Your task to perform on an android device: see creations saved in the google photos Image 0: 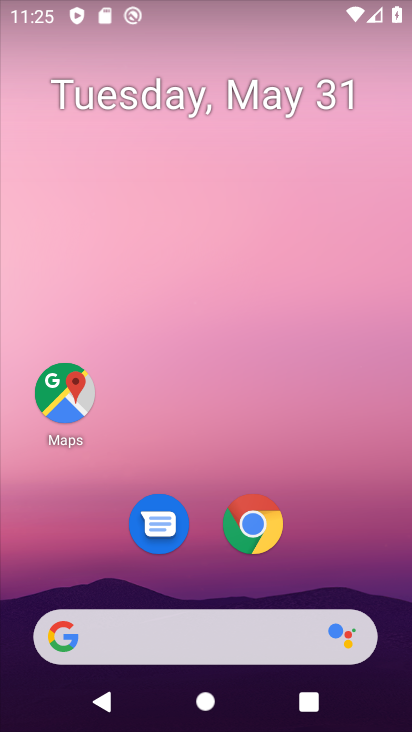
Step 0: drag from (318, 541) to (279, 19)
Your task to perform on an android device: see creations saved in the google photos Image 1: 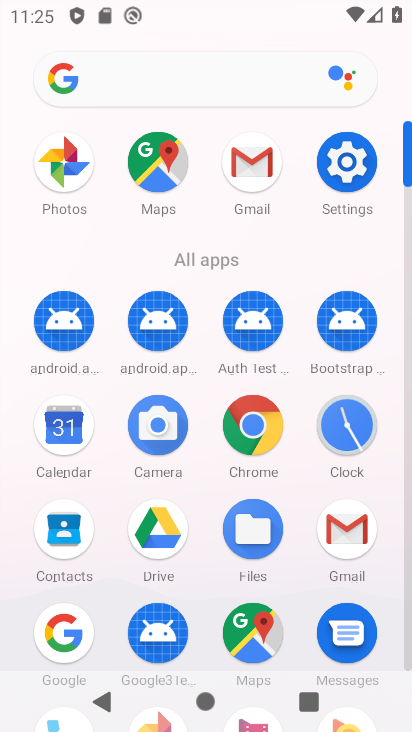
Step 1: click (55, 158)
Your task to perform on an android device: see creations saved in the google photos Image 2: 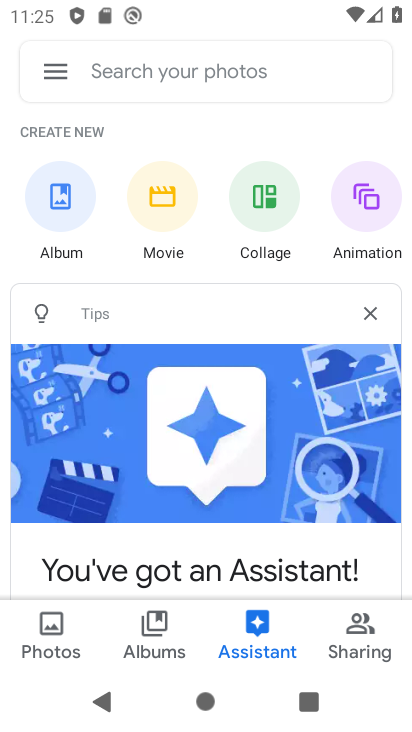
Step 2: click (215, 66)
Your task to perform on an android device: see creations saved in the google photos Image 3: 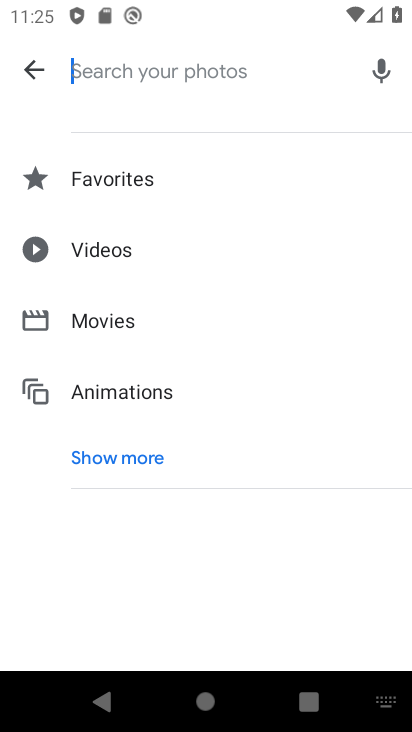
Step 3: click (140, 445)
Your task to perform on an android device: see creations saved in the google photos Image 4: 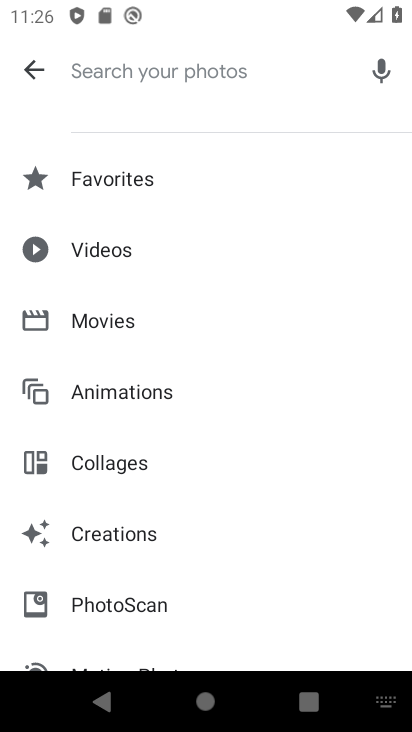
Step 4: click (100, 533)
Your task to perform on an android device: see creations saved in the google photos Image 5: 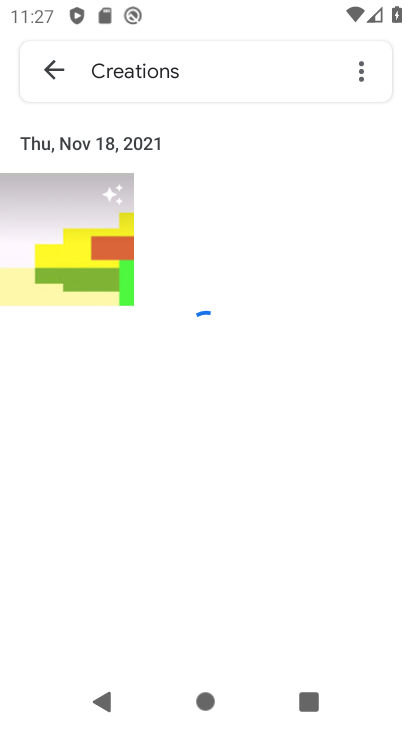
Step 5: task complete